Your task to perform on an android device: turn on improve location accuracy Image 0: 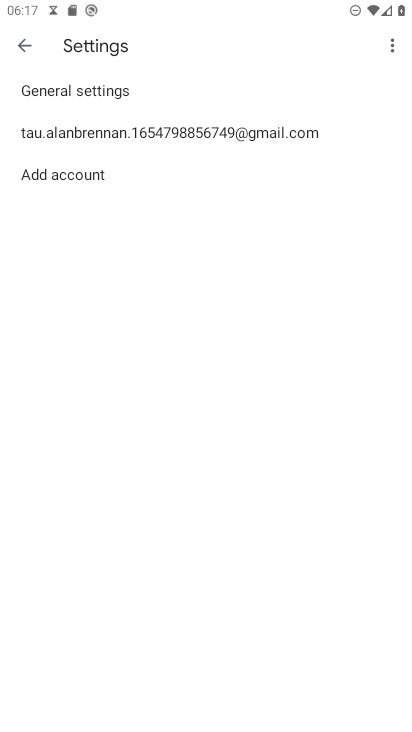
Step 0: press home button
Your task to perform on an android device: turn on improve location accuracy Image 1: 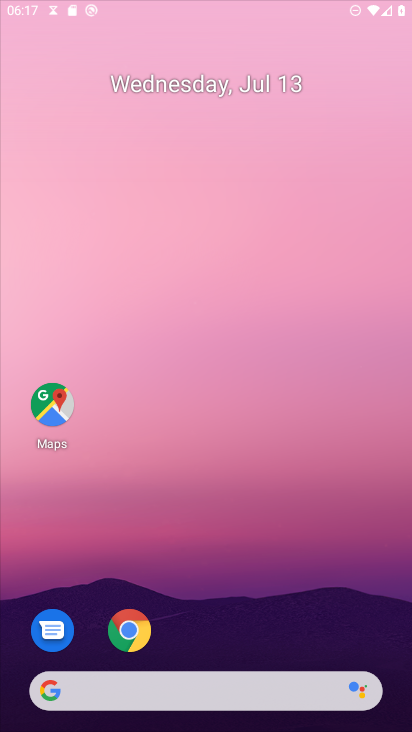
Step 1: drag from (269, 684) to (255, 81)
Your task to perform on an android device: turn on improve location accuracy Image 2: 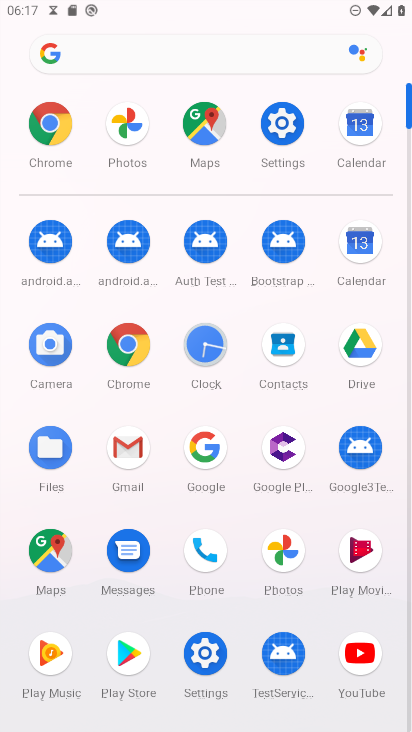
Step 2: click (277, 120)
Your task to perform on an android device: turn on improve location accuracy Image 3: 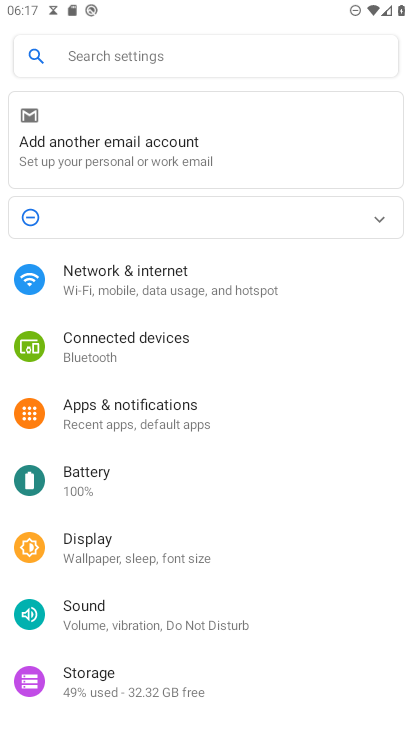
Step 3: drag from (169, 618) to (166, 192)
Your task to perform on an android device: turn on improve location accuracy Image 4: 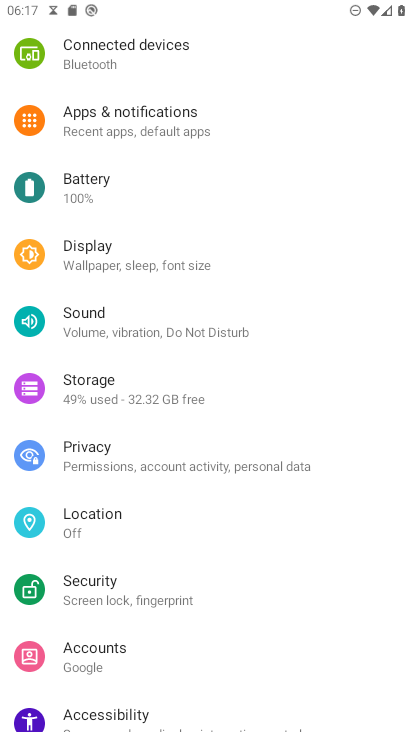
Step 4: click (136, 521)
Your task to perform on an android device: turn on improve location accuracy Image 5: 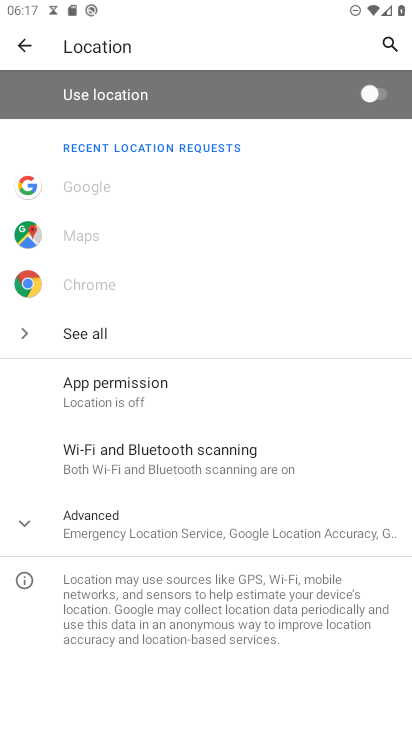
Step 5: click (175, 522)
Your task to perform on an android device: turn on improve location accuracy Image 6: 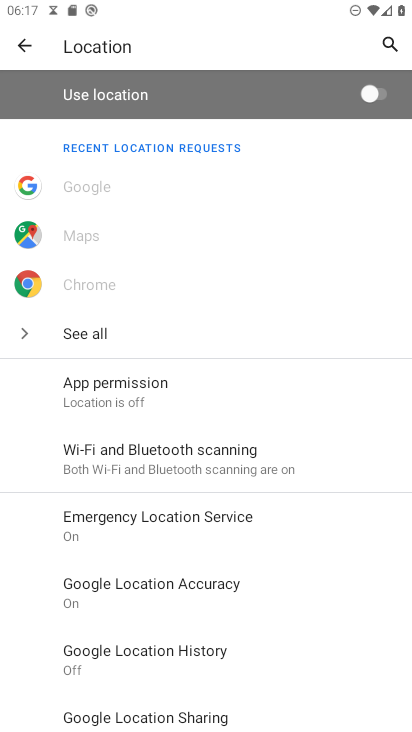
Step 6: click (238, 585)
Your task to perform on an android device: turn on improve location accuracy Image 7: 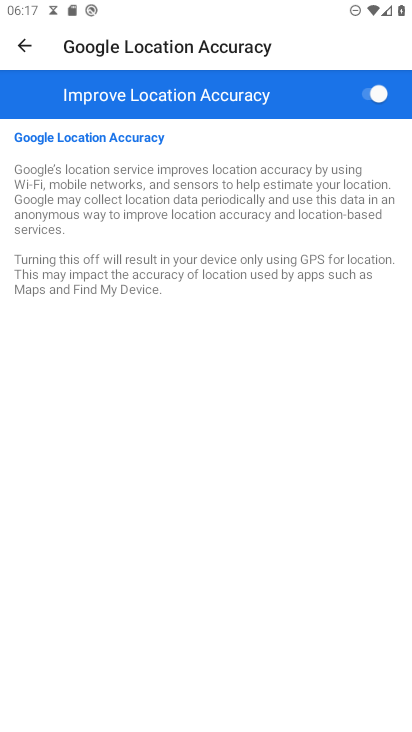
Step 7: task complete